Your task to perform on an android device: delete browsing data in the chrome app Image 0: 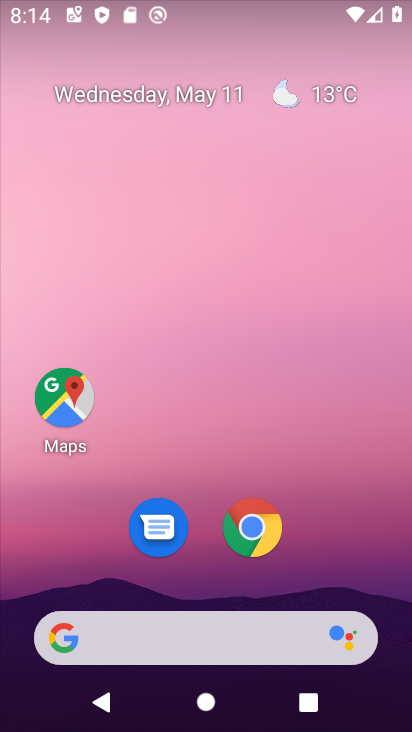
Step 0: click (222, 528)
Your task to perform on an android device: delete browsing data in the chrome app Image 1: 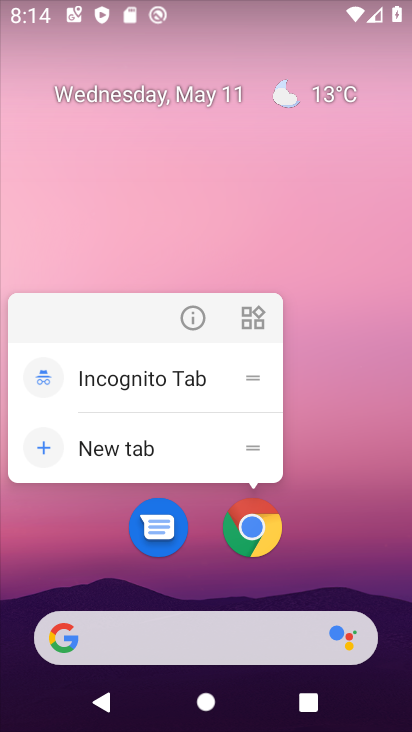
Step 1: click (255, 549)
Your task to perform on an android device: delete browsing data in the chrome app Image 2: 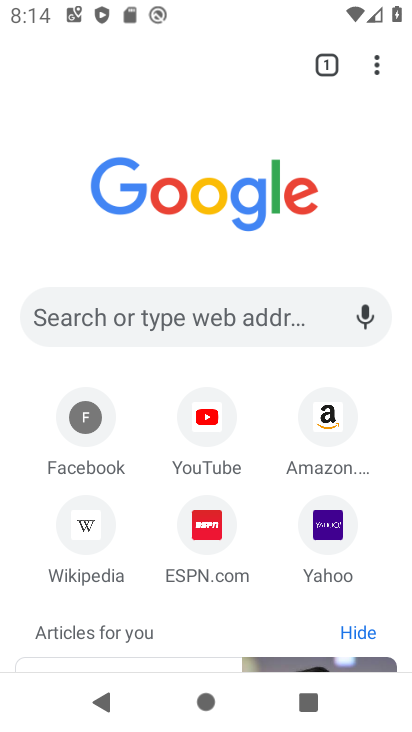
Step 2: drag from (387, 62) to (267, 527)
Your task to perform on an android device: delete browsing data in the chrome app Image 3: 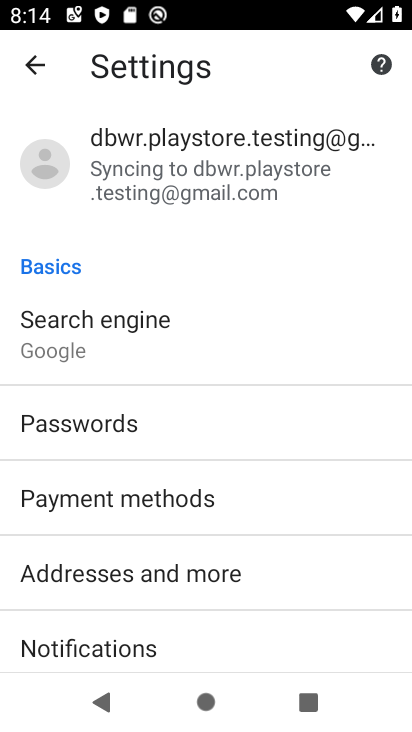
Step 3: drag from (135, 609) to (219, 239)
Your task to perform on an android device: delete browsing data in the chrome app Image 4: 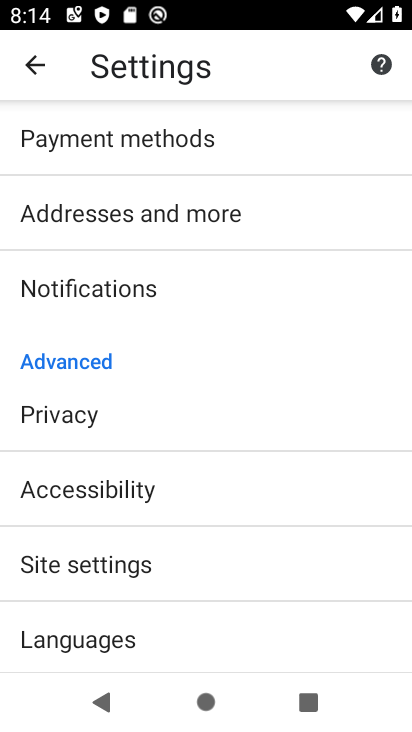
Step 4: click (128, 426)
Your task to perform on an android device: delete browsing data in the chrome app Image 5: 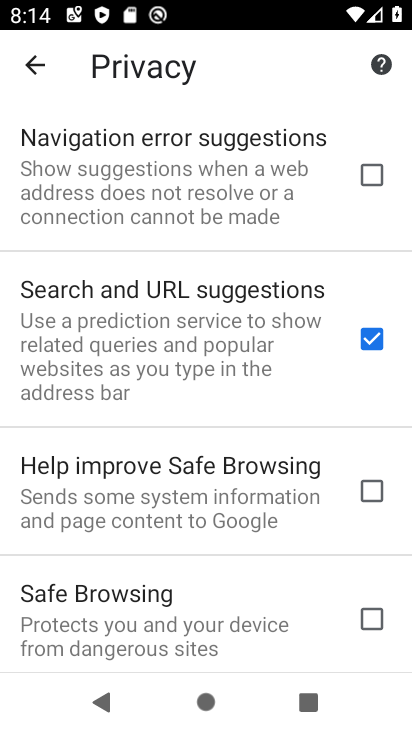
Step 5: drag from (121, 600) to (226, 96)
Your task to perform on an android device: delete browsing data in the chrome app Image 6: 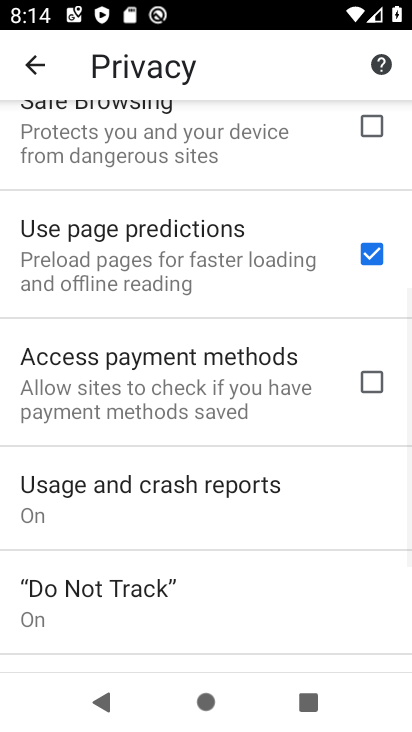
Step 6: drag from (182, 585) to (226, 212)
Your task to perform on an android device: delete browsing data in the chrome app Image 7: 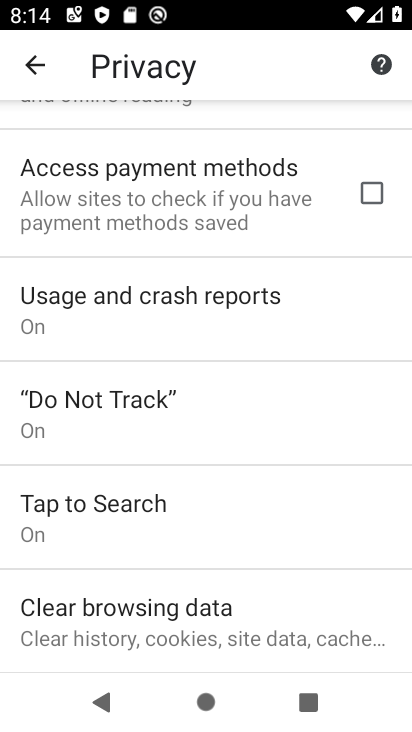
Step 7: click (171, 623)
Your task to perform on an android device: delete browsing data in the chrome app Image 8: 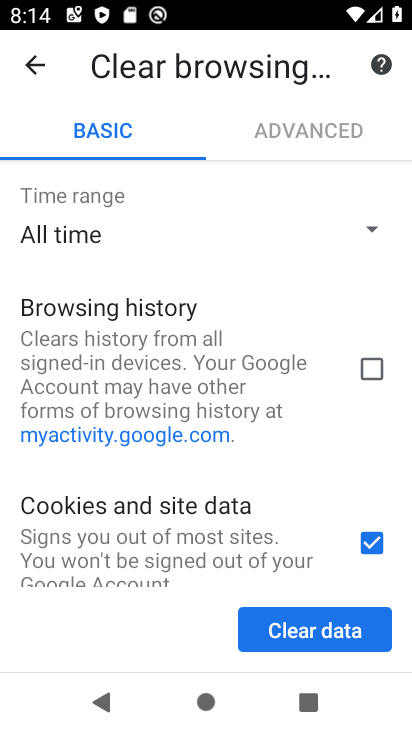
Step 8: click (366, 362)
Your task to perform on an android device: delete browsing data in the chrome app Image 9: 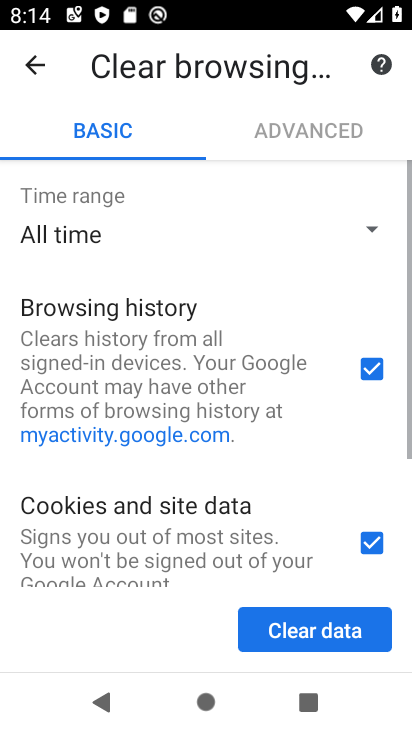
Step 9: click (377, 558)
Your task to perform on an android device: delete browsing data in the chrome app Image 10: 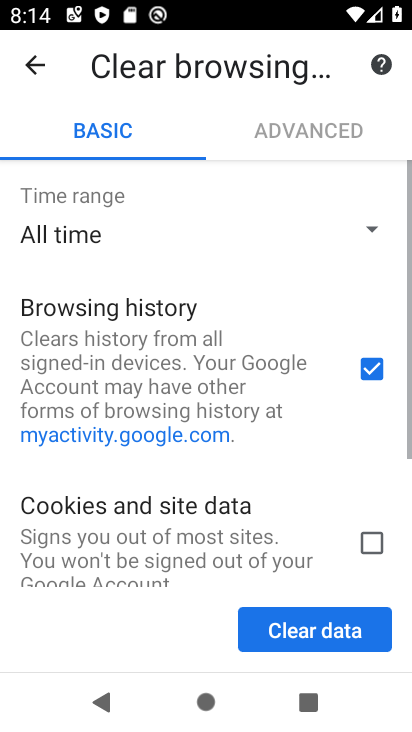
Step 10: drag from (132, 561) to (199, 244)
Your task to perform on an android device: delete browsing data in the chrome app Image 11: 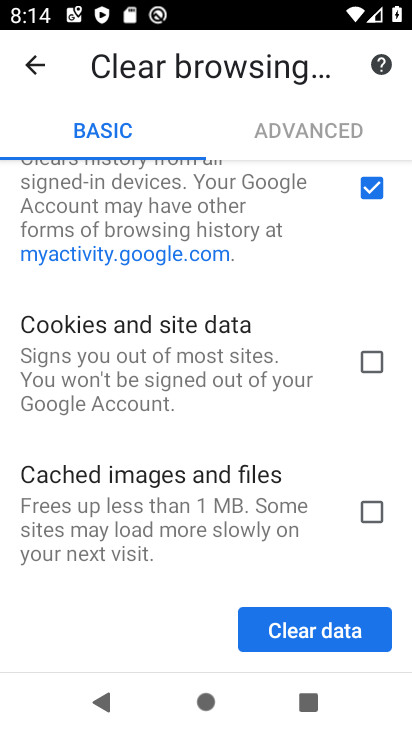
Step 11: click (320, 630)
Your task to perform on an android device: delete browsing data in the chrome app Image 12: 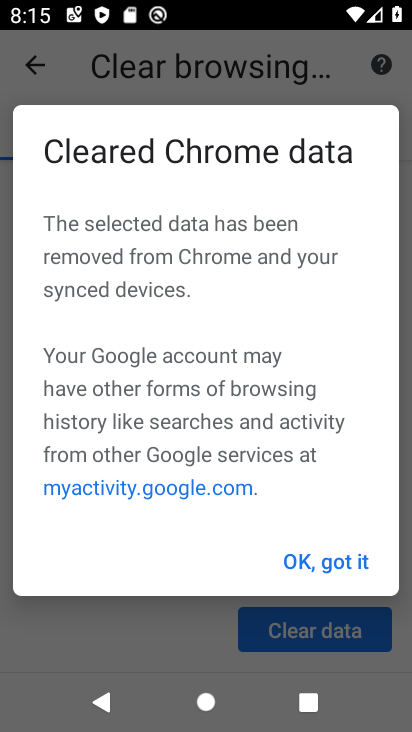
Step 12: click (344, 558)
Your task to perform on an android device: delete browsing data in the chrome app Image 13: 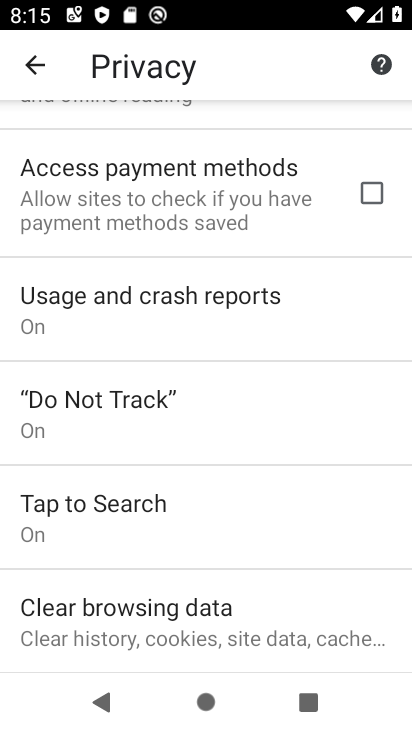
Step 13: task complete